Your task to perform on an android device: Search for pizza restaurants on Maps Image 0: 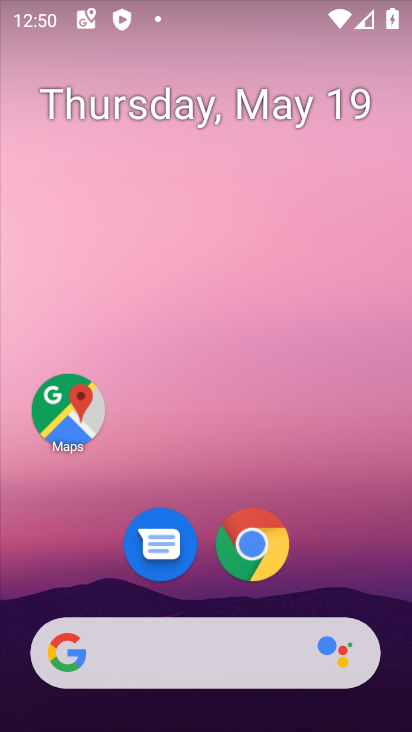
Step 0: drag from (326, 590) to (302, 58)
Your task to perform on an android device: Search for pizza restaurants on Maps Image 1: 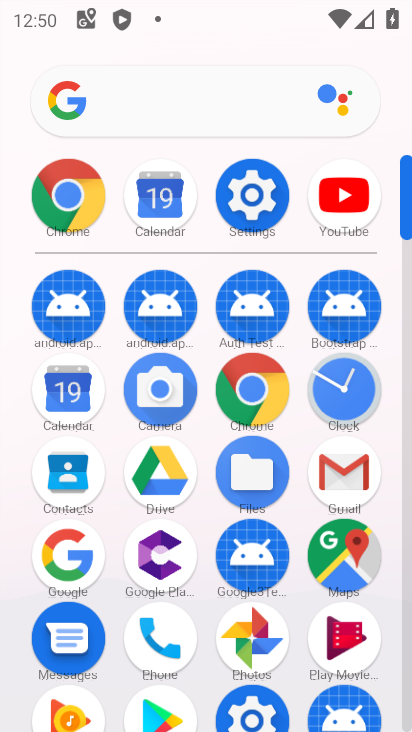
Step 1: click (348, 574)
Your task to perform on an android device: Search for pizza restaurants on Maps Image 2: 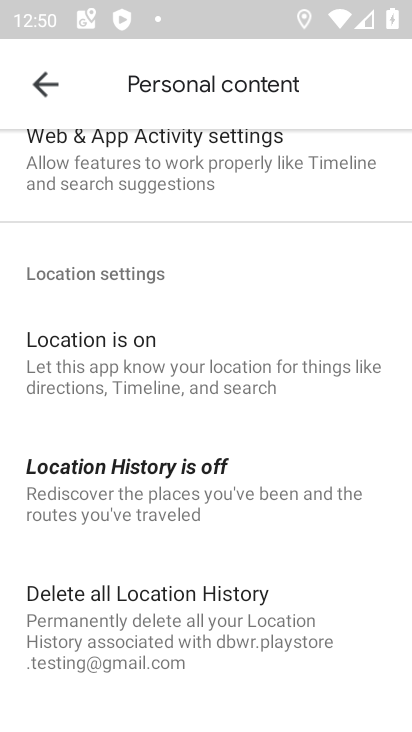
Step 2: press back button
Your task to perform on an android device: Search for pizza restaurants on Maps Image 3: 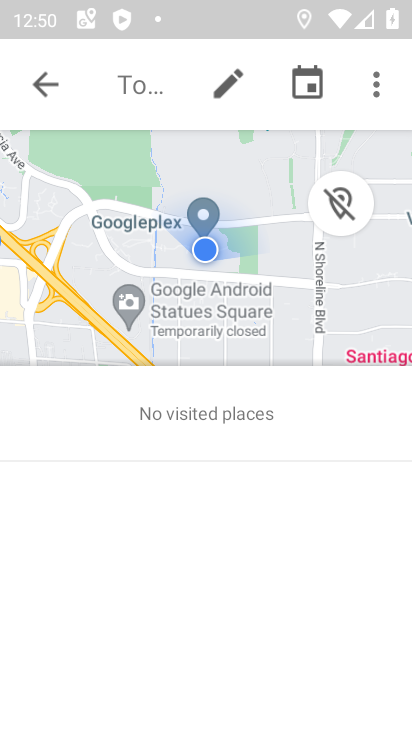
Step 3: press back button
Your task to perform on an android device: Search for pizza restaurants on Maps Image 4: 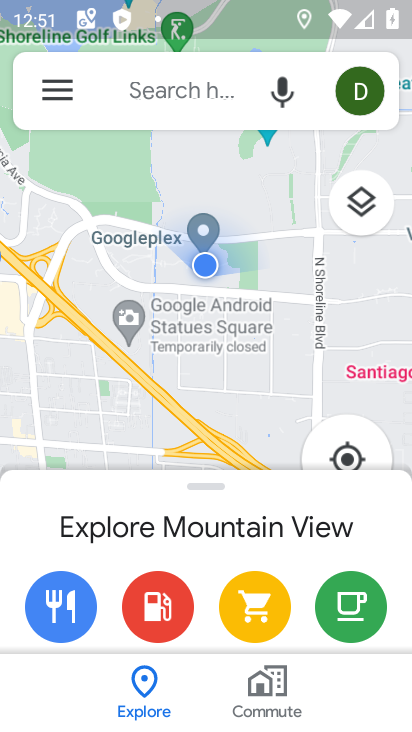
Step 4: click (200, 75)
Your task to perform on an android device: Search for pizza restaurants on Maps Image 5: 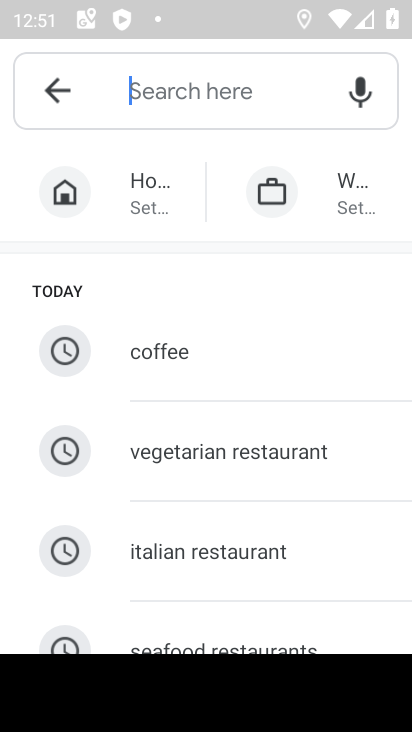
Step 5: type "pizza restaurant"
Your task to perform on an android device: Search for pizza restaurants on Maps Image 6: 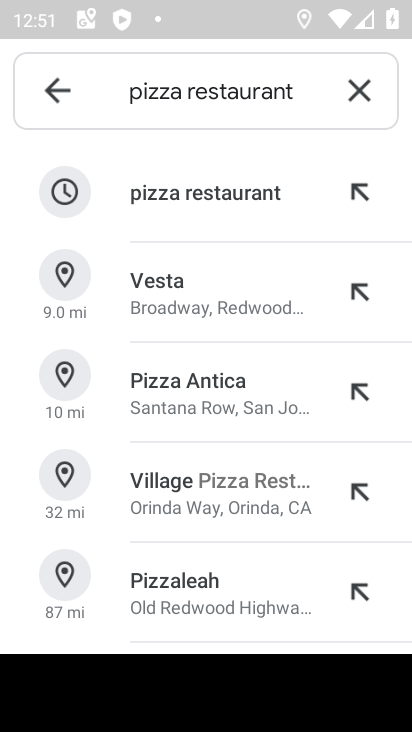
Step 6: click (205, 192)
Your task to perform on an android device: Search for pizza restaurants on Maps Image 7: 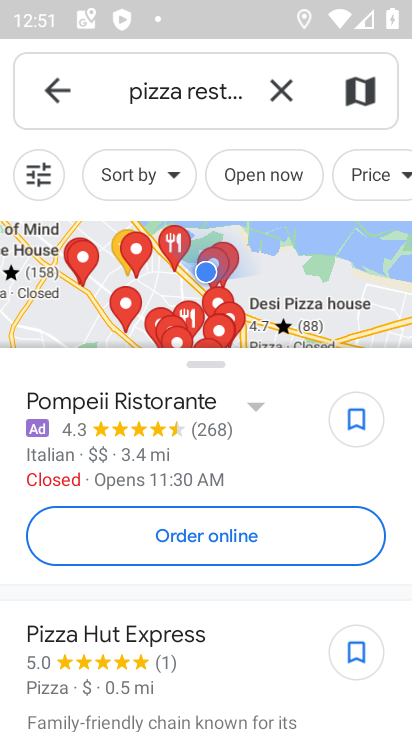
Step 7: task complete